Your task to perform on an android device: Go to location settings Image 0: 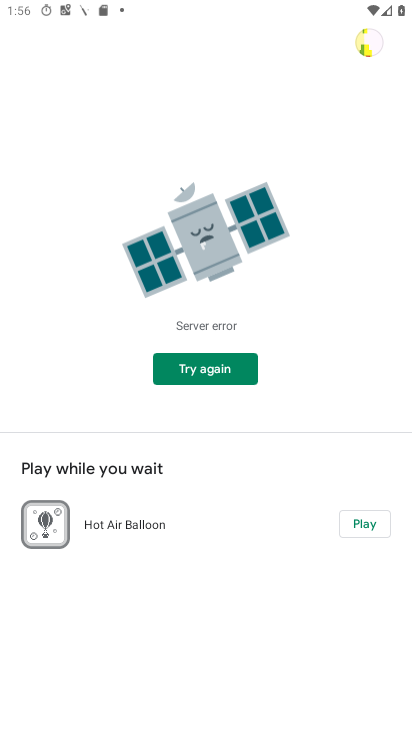
Step 0: press home button
Your task to perform on an android device: Go to location settings Image 1: 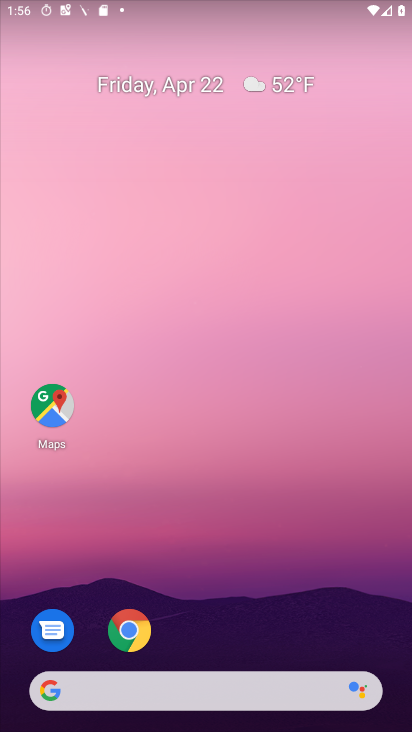
Step 1: drag from (359, 524) to (330, 106)
Your task to perform on an android device: Go to location settings Image 2: 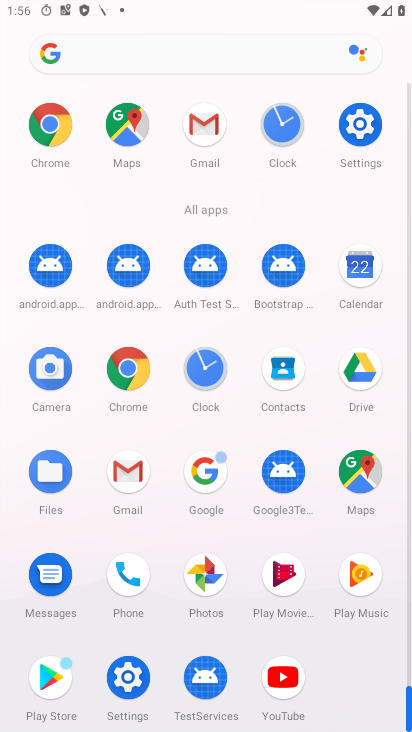
Step 2: click (361, 125)
Your task to perform on an android device: Go to location settings Image 3: 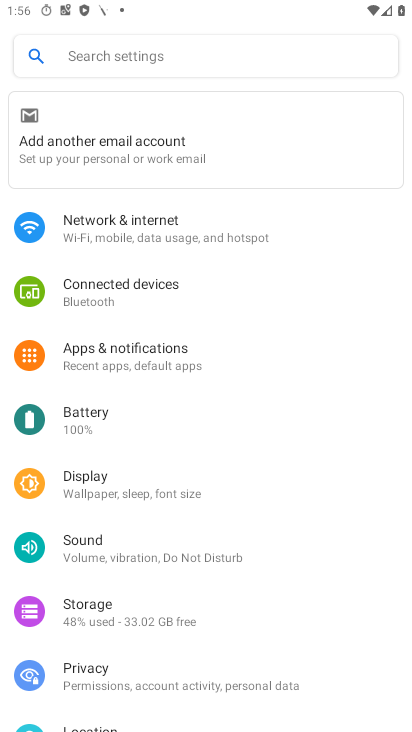
Step 3: drag from (370, 647) to (349, 284)
Your task to perform on an android device: Go to location settings Image 4: 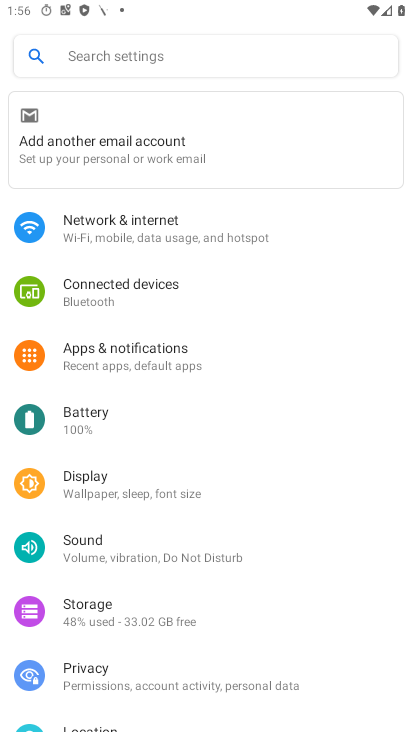
Step 4: click (332, 303)
Your task to perform on an android device: Go to location settings Image 5: 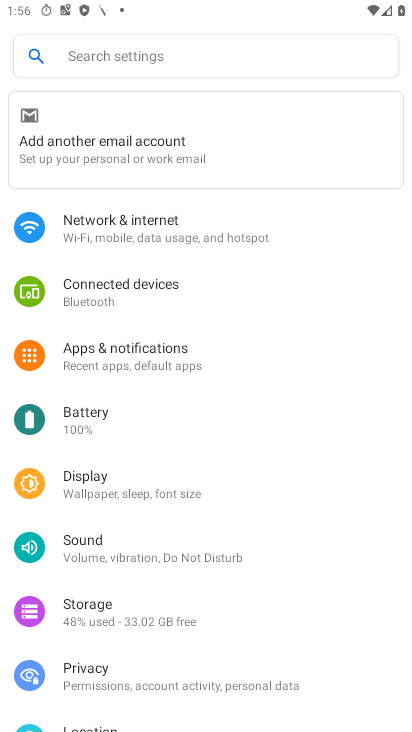
Step 5: drag from (342, 415) to (338, 295)
Your task to perform on an android device: Go to location settings Image 6: 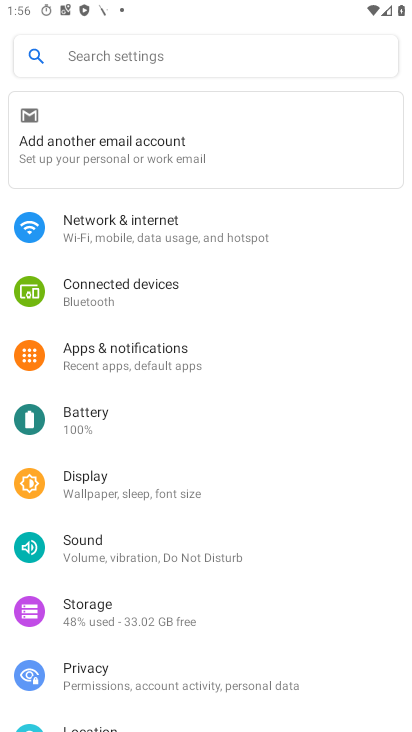
Step 6: drag from (361, 313) to (349, 254)
Your task to perform on an android device: Go to location settings Image 7: 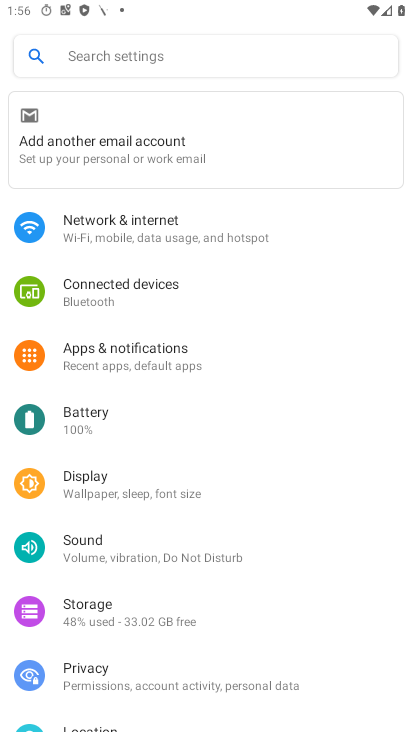
Step 7: click (68, 726)
Your task to perform on an android device: Go to location settings Image 8: 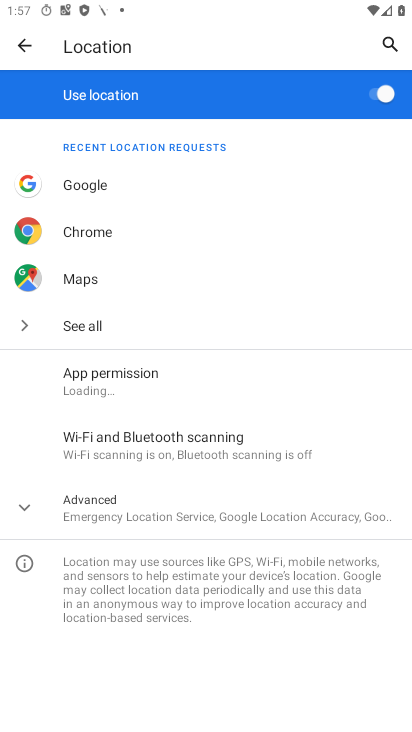
Step 8: click (67, 511)
Your task to perform on an android device: Go to location settings Image 9: 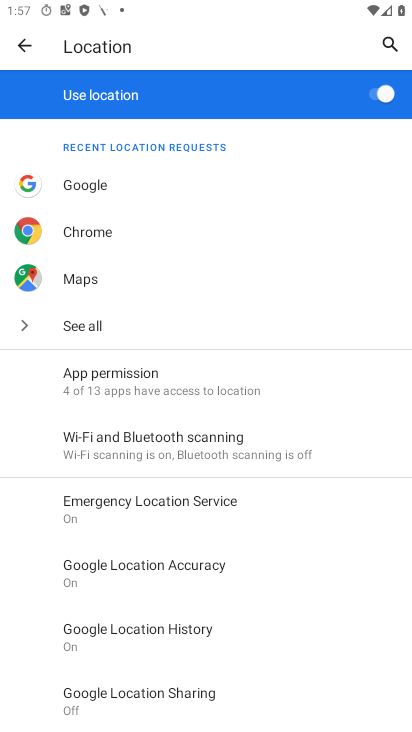
Step 9: task complete